Your task to perform on an android device: Find coffee shops on Maps Image 0: 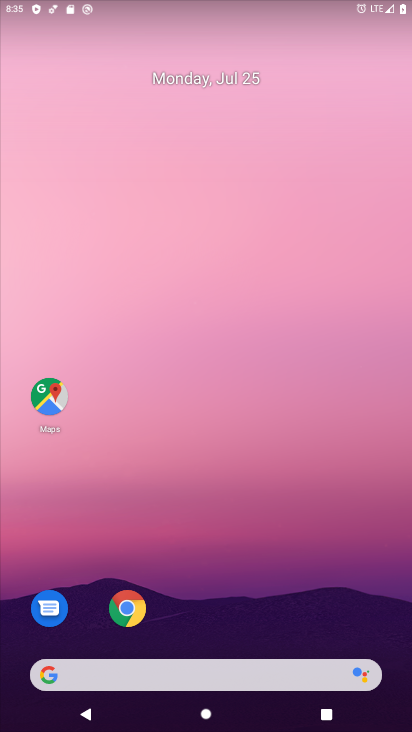
Step 0: drag from (243, 680) to (284, 175)
Your task to perform on an android device: Find coffee shops on Maps Image 1: 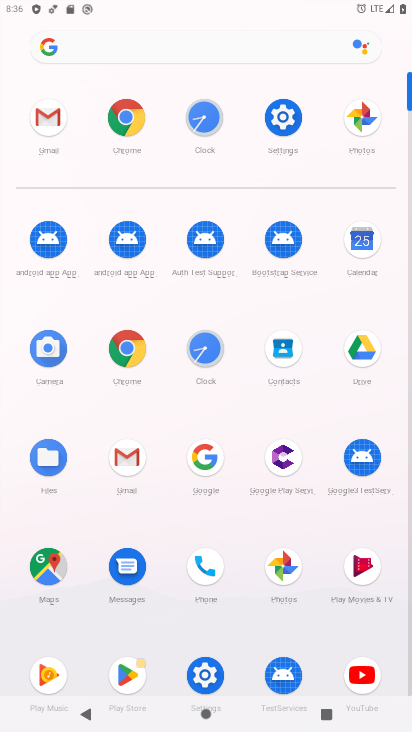
Step 1: click (55, 555)
Your task to perform on an android device: Find coffee shops on Maps Image 2: 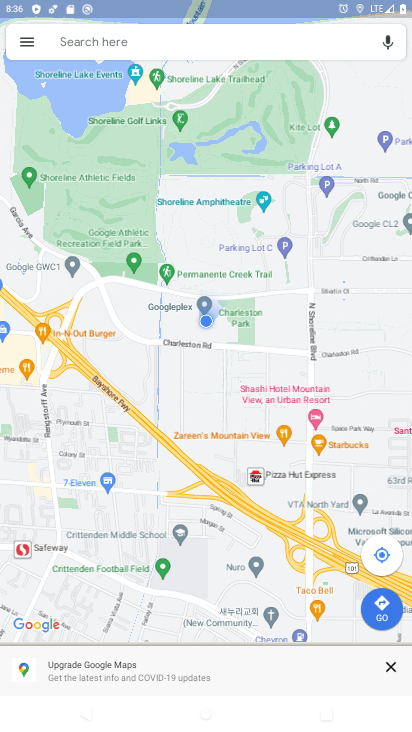
Step 2: click (252, 42)
Your task to perform on an android device: Find coffee shops on Maps Image 3: 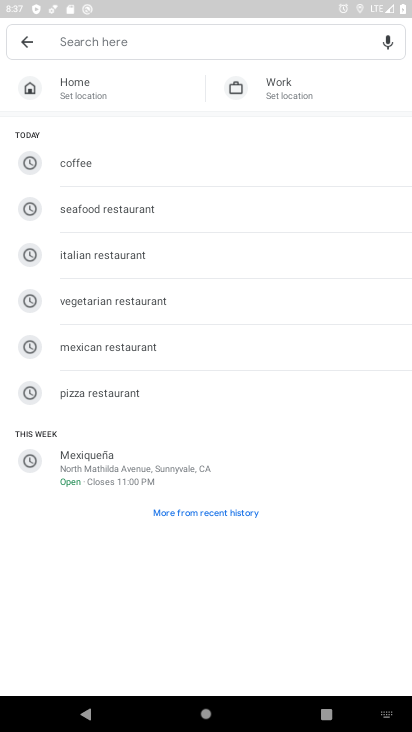
Step 3: type "coffee shops"
Your task to perform on an android device: Find coffee shops on Maps Image 4: 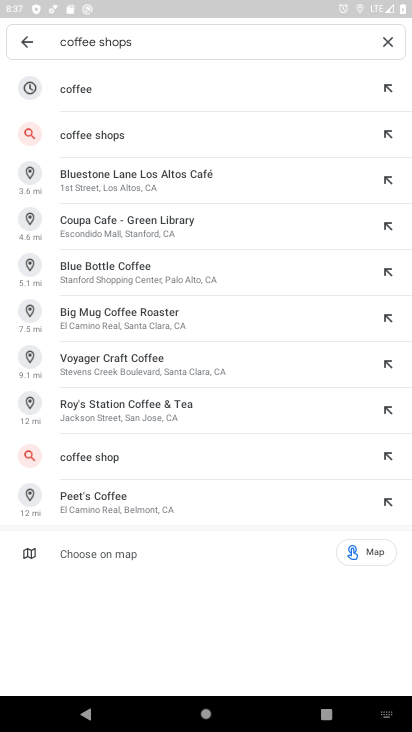
Step 4: click (101, 132)
Your task to perform on an android device: Find coffee shops on Maps Image 5: 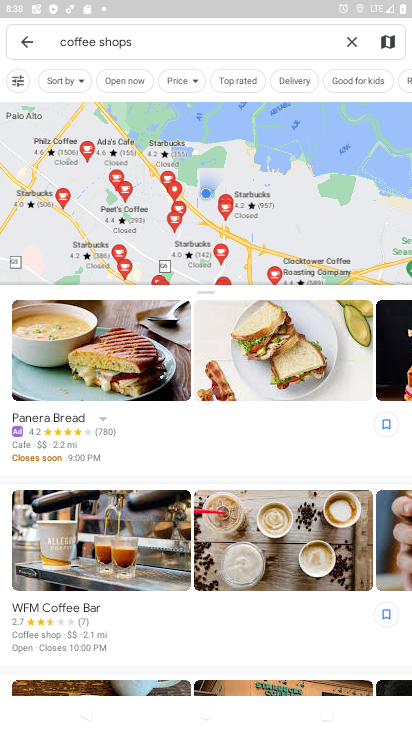
Step 5: task complete